Your task to perform on an android device: toggle data saver in the chrome app Image 0: 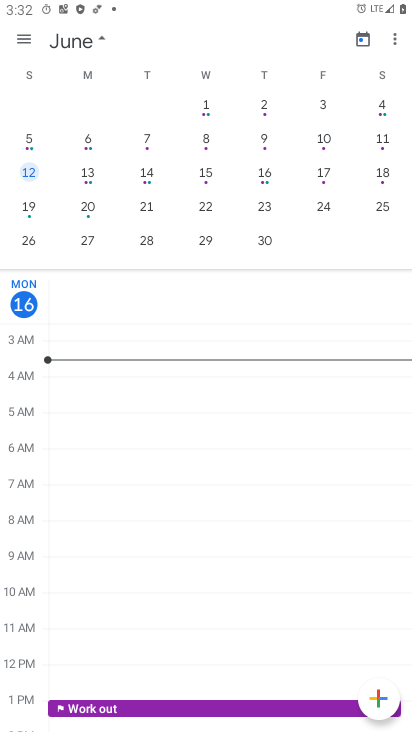
Step 0: press home button
Your task to perform on an android device: toggle data saver in the chrome app Image 1: 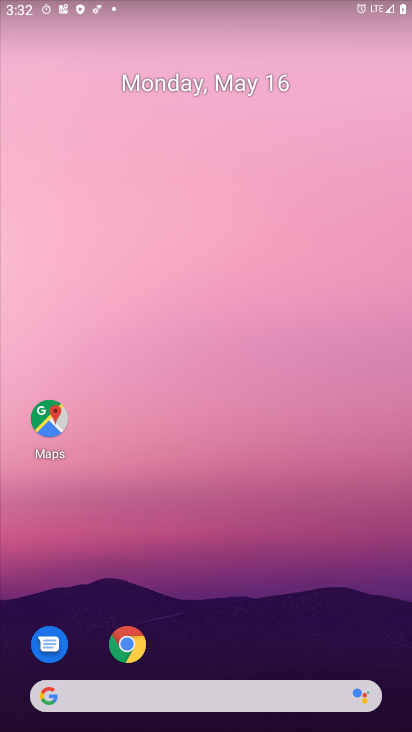
Step 1: drag from (225, 541) to (222, 229)
Your task to perform on an android device: toggle data saver in the chrome app Image 2: 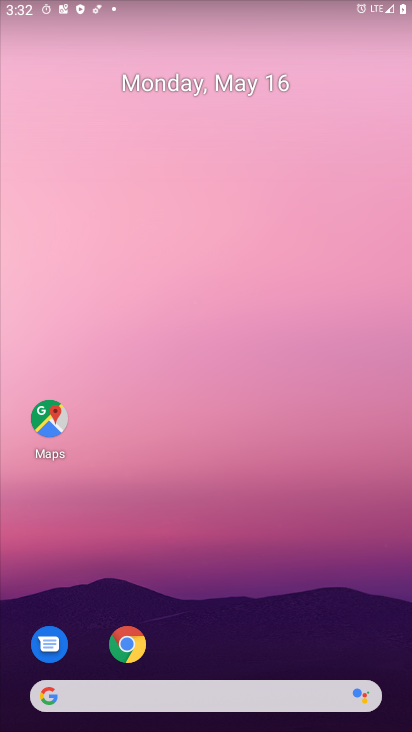
Step 2: click (137, 642)
Your task to perform on an android device: toggle data saver in the chrome app Image 3: 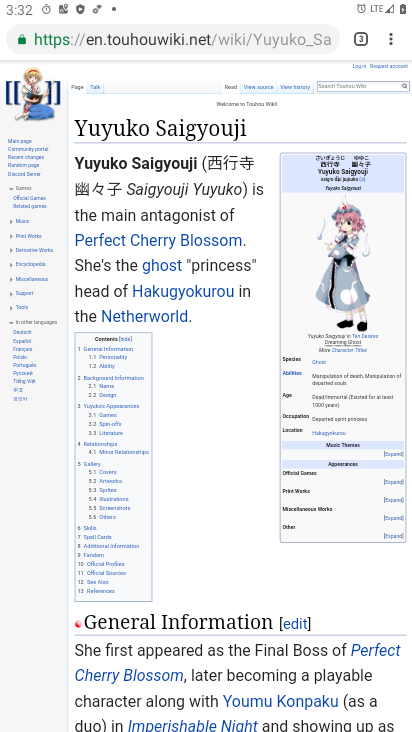
Step 3: click (399, 43)
Your task to perform on an android device: toggle data saver in the chrome app Image 4: 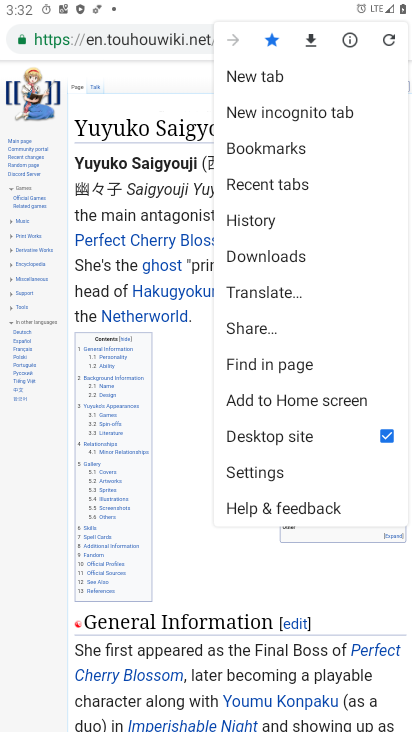
Step 4: click (265, 470)
Your task to perform on an android device: toggle data saver in the chrome app Image 5: 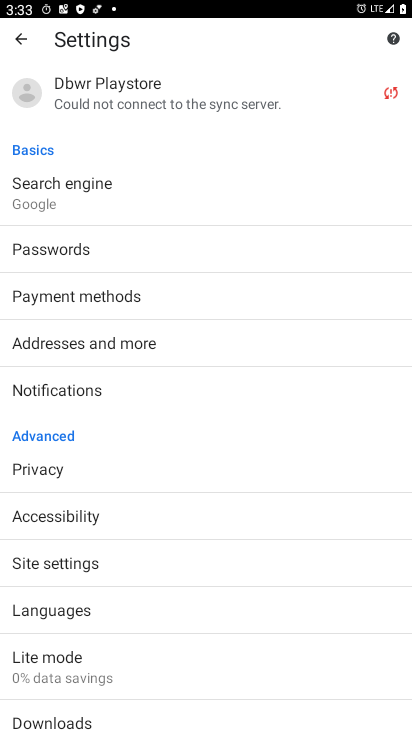
Step 5: drag from (162, 517) to (181, 439)
Your task to perform on an android device: toggle data saver in the chrome app Image 6: 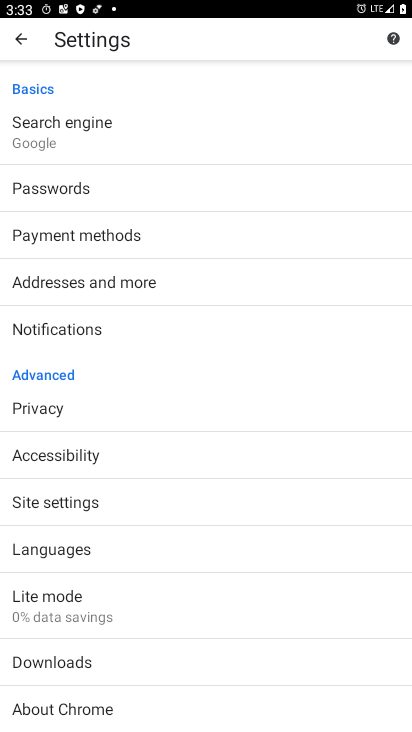
Step 6: drag from (83, 610) to (128, 446)
Your task to perform on an android device: toggle data saver in the chrome app Image 7: 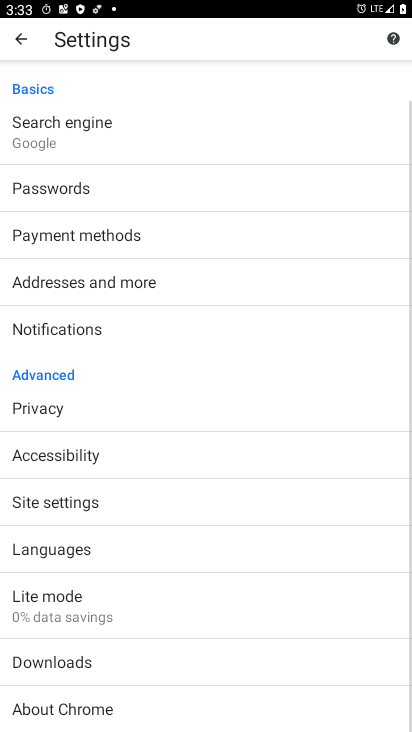
Step 7: click (87, 604)
Your task to perform on an android device: toggle data saver in the chrome app Image 8: 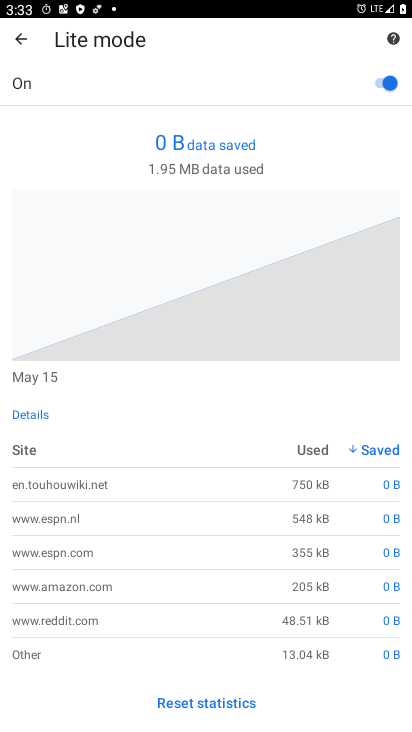
Step 8: click (379, 88)
Your task to perform on an android device: toggle data saver in the chrome app Image 9: 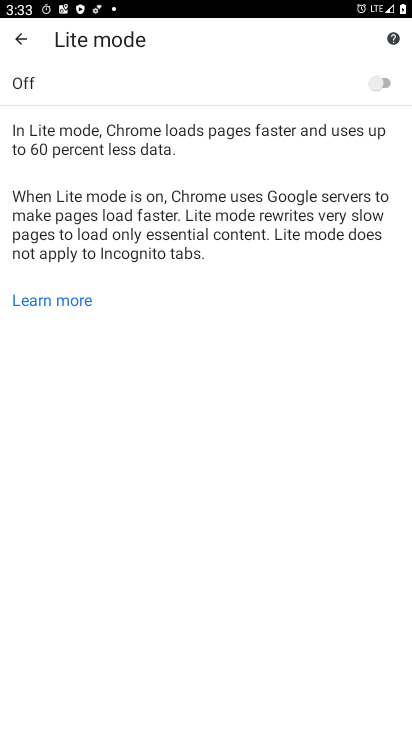
Step 9: task complete